Your task to perform on an android device: Open Reddit.com Image 0: 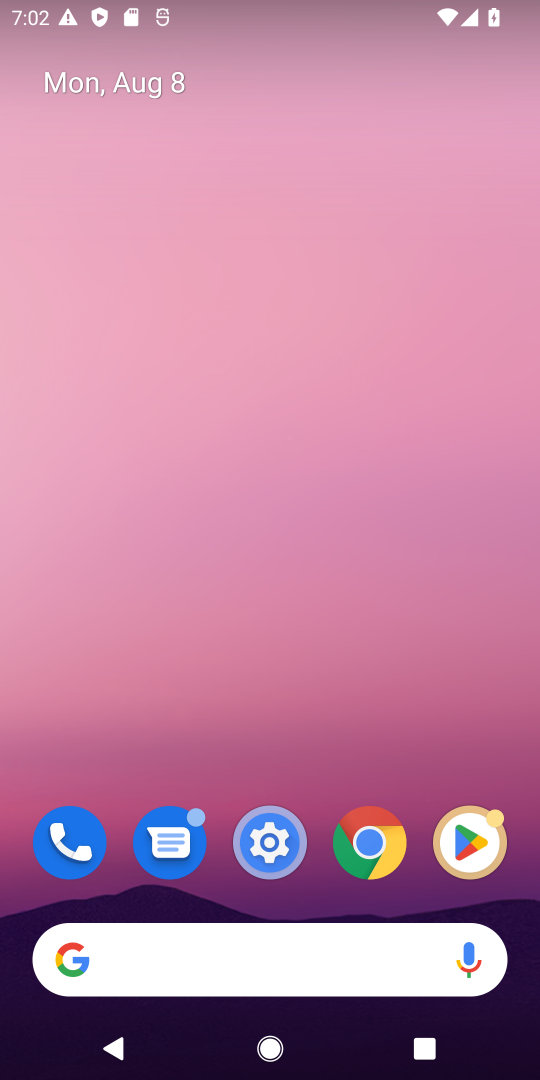
Step 0: drag from (273, 730) to (337, 13)
Your task to perform on an android device: Open Reddit.com Image 1: 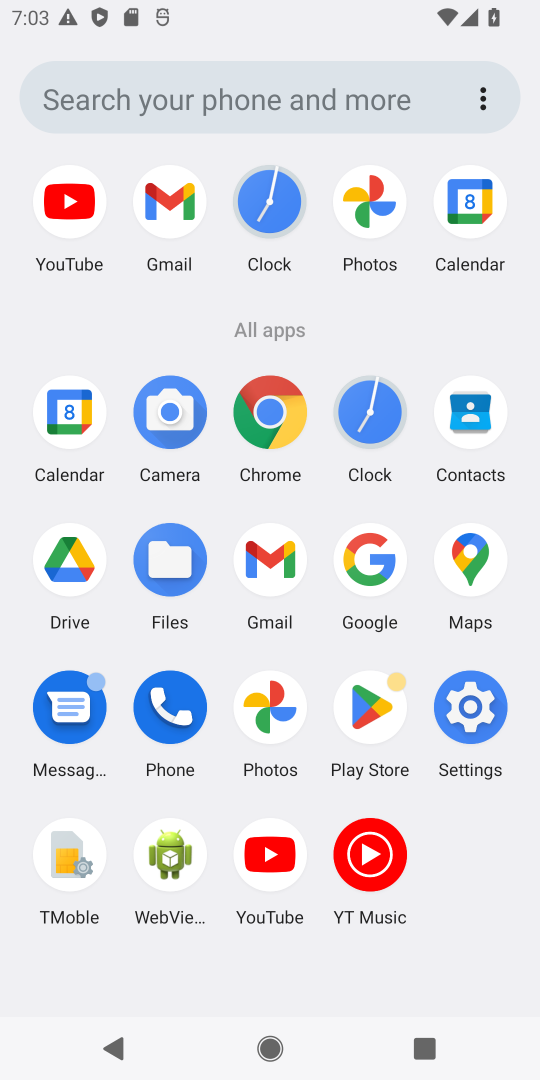
Step 1: click (288, 100)
Your task to perform on an android device: Open Reddit.com Image 2: 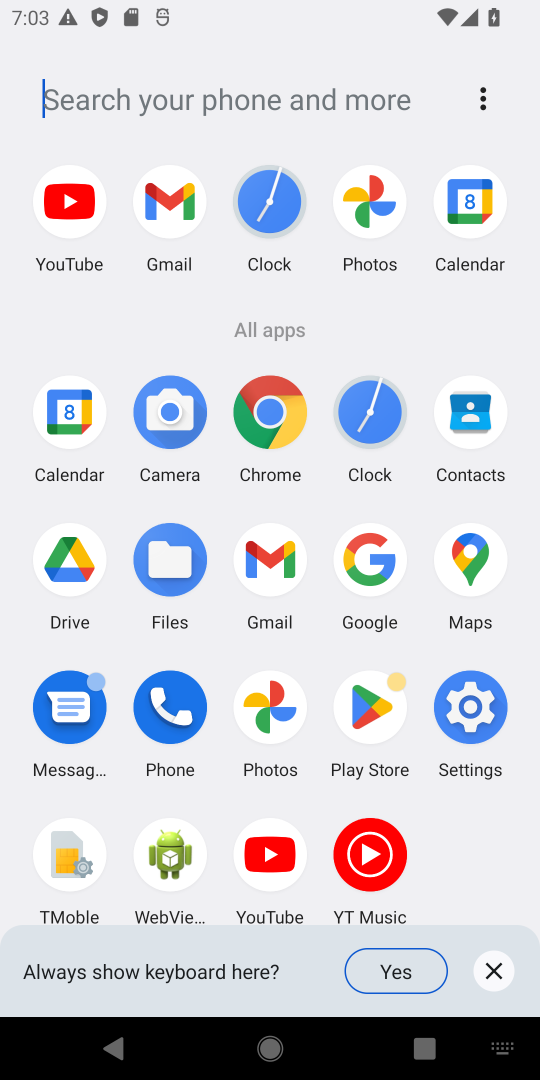
Step 2: type "reddit.com"
Your task to perform on an android device: Open Reddit.com Image 3: 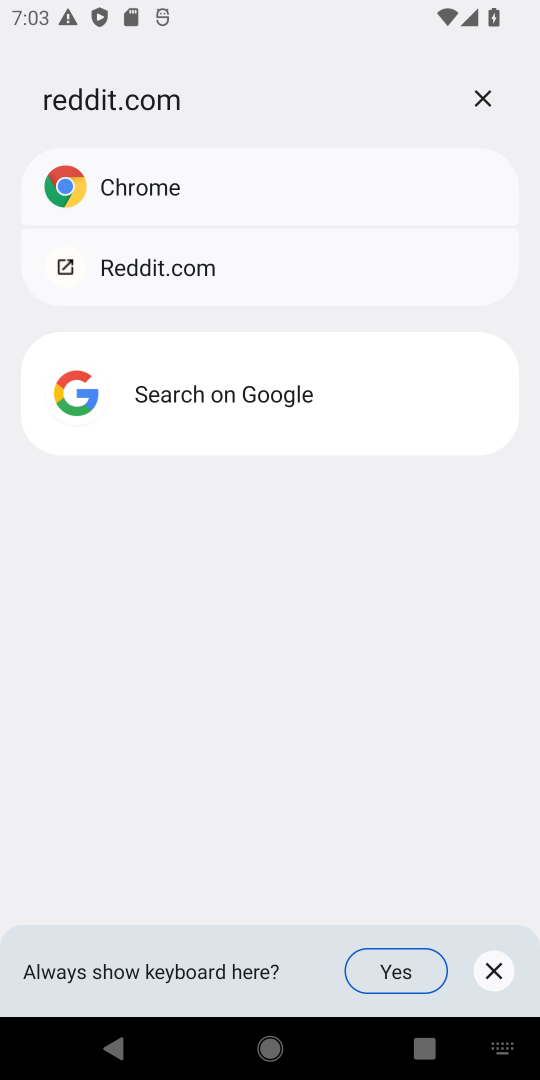
Step 3: click (253, 399)
Your task to perform on an android device: Open Reddit.com Image 4: 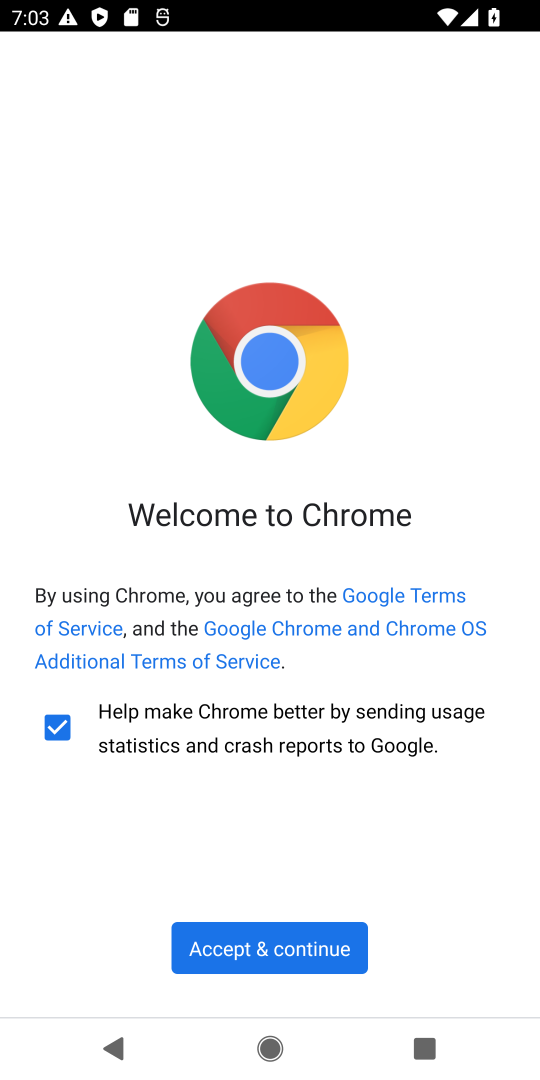
Step 4: click (329, 946)
Your task to perform on an android device: Open Reddit.com Image 5: 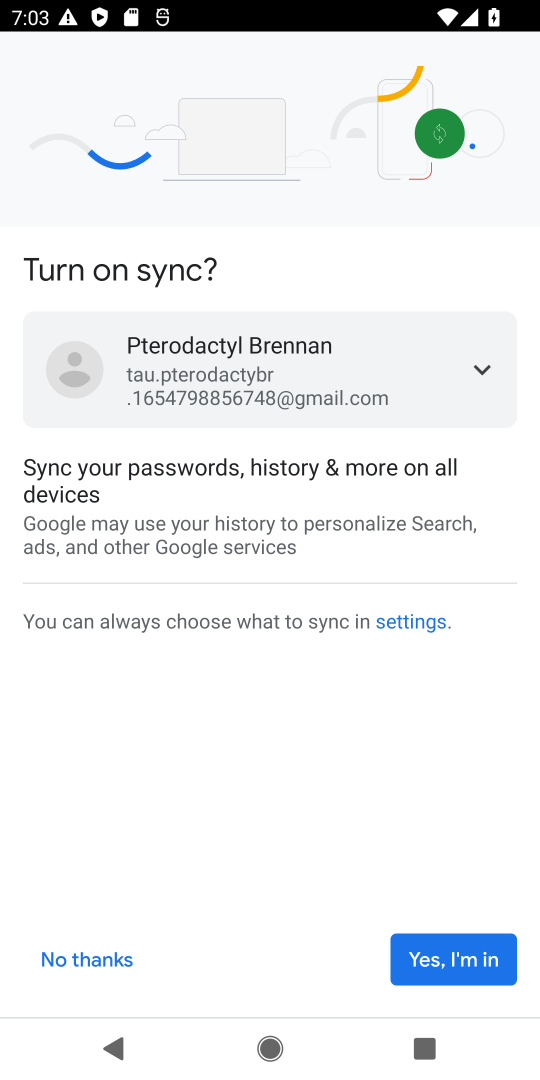
Step 5: click (425, 967)
Your task to perform on an android device: Open Reddit.com Image 6: 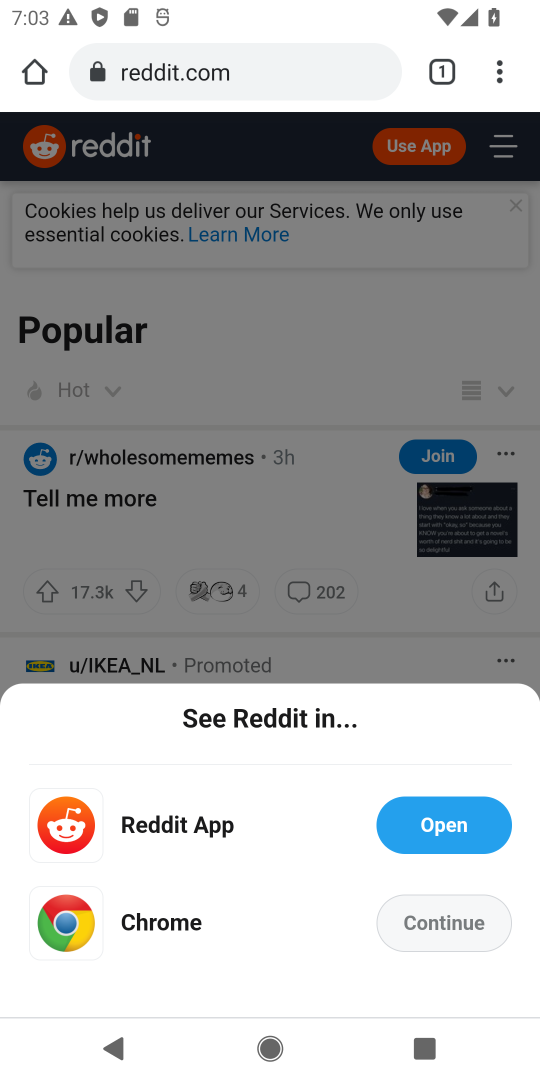
Step 6: click (433, 913)
Your task to perform on an android device: Open Reddit.com Image 7: 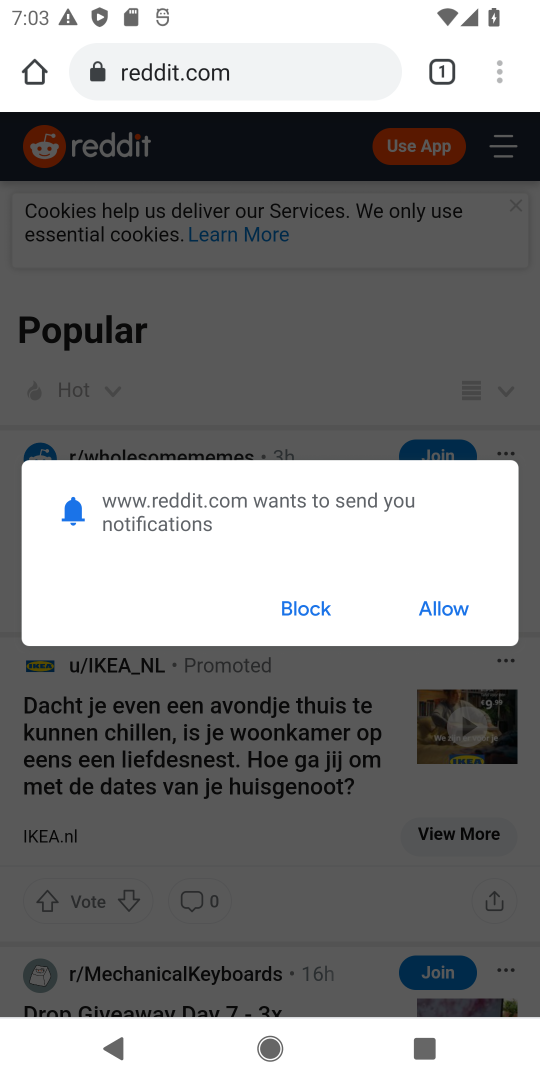
Step 7: click (318, 609)
Your task to perform on an android device: Open Reddit.com Image 8: 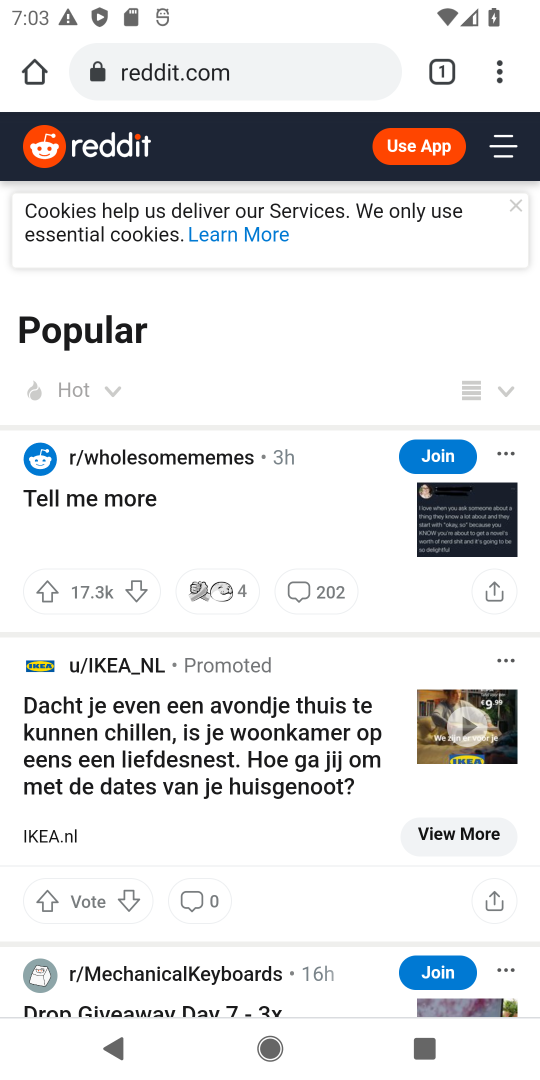
Step 8: task complete